Your task to perform on an android device: Go to ESPN.com Image 0: 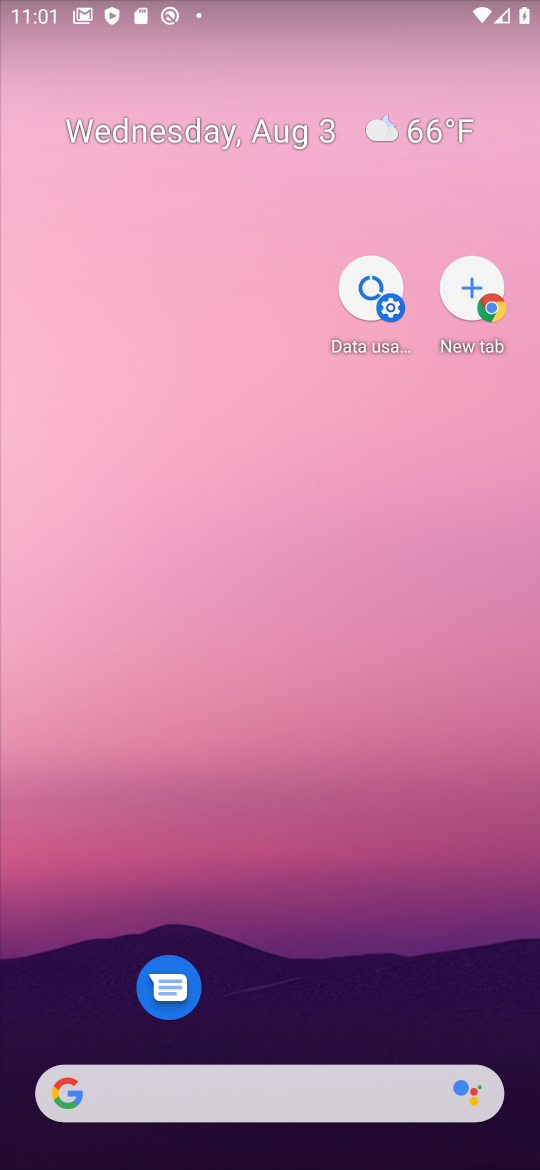
Step 0: drag from (302, 627) to (286, 433)
Your task to perform on an android device: Go to ESPN.com Image 1: 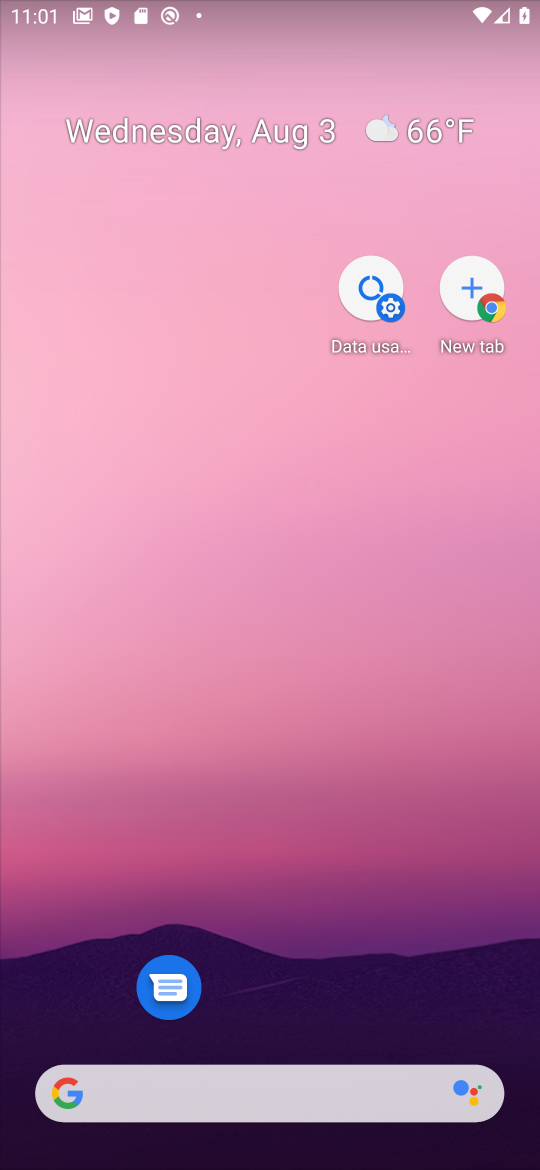
Step 1: drag from (285, 535) to (285, 469)
Your task to perform on an android device: Go to ESPN.com Image 2: 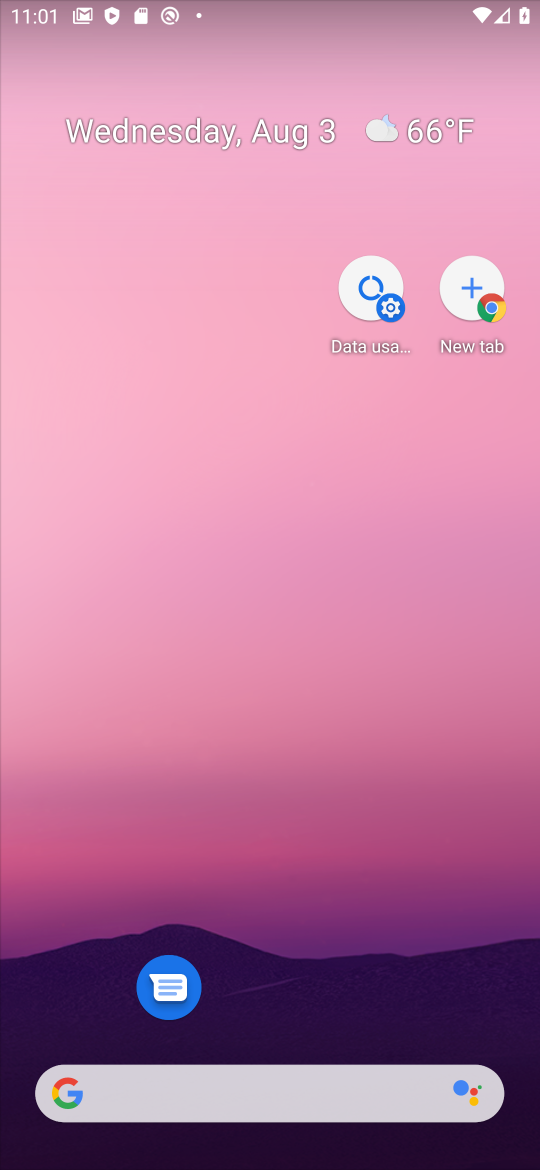
Step 2: click (399, 235)
Your task to perform on an android device: Go to ESPN.com Image 3: 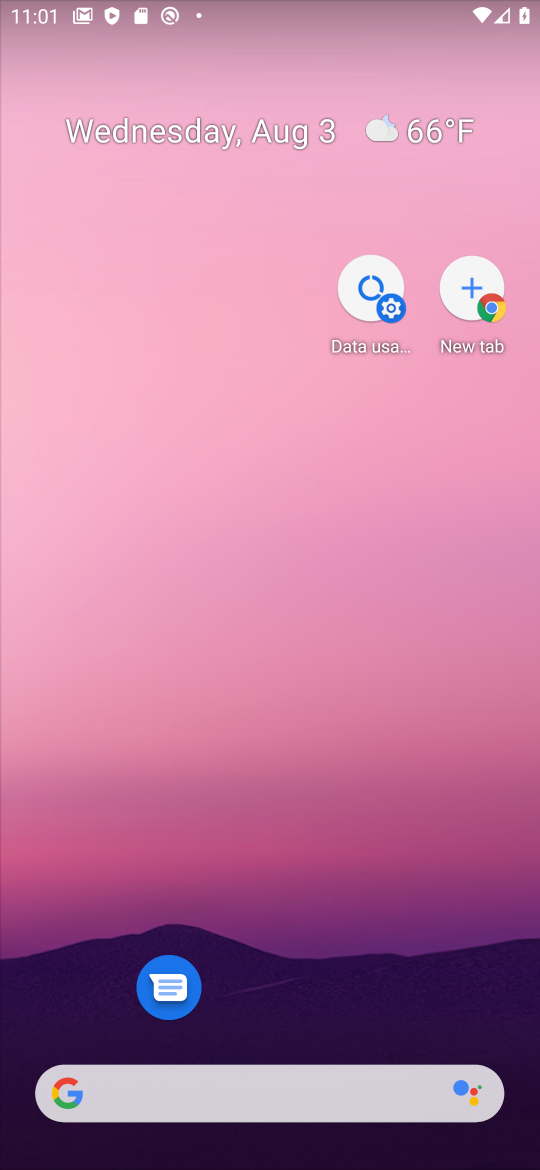
Step 3: drag from (386, 643) to (369, 233)
Your task to perform on an android device: Go to ESPN.com Image 4: 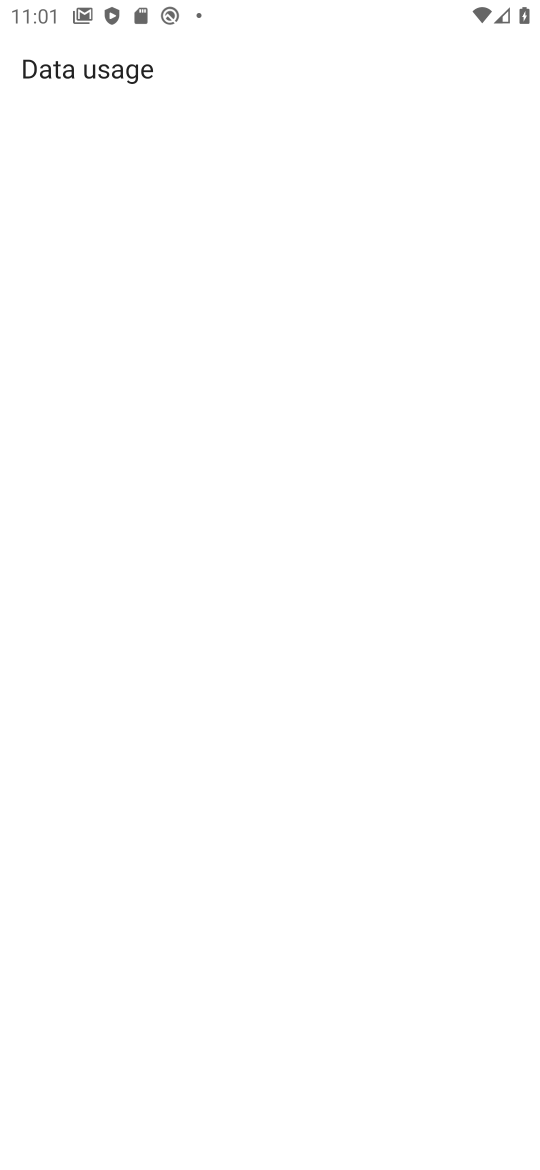
Step 4: drag from (392, 752) to (351, 297)
Your task to perform on an android device: Go to ESPN.com Image 5: 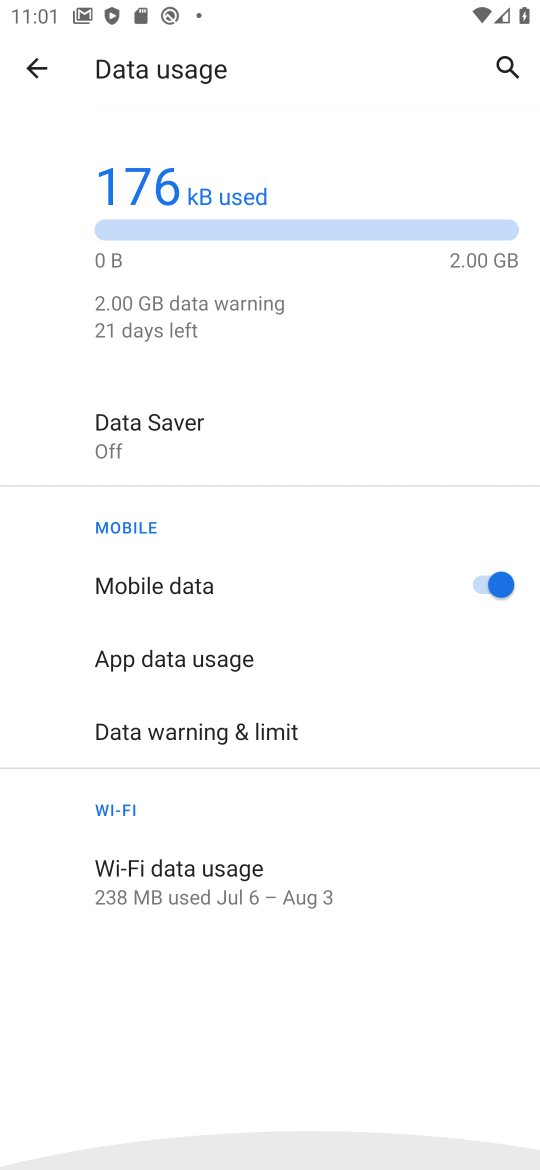
Step 5: drag from (395, 615) to (376, 245)
Your task to perform on an android device: Go to ESPN.com Image 6: 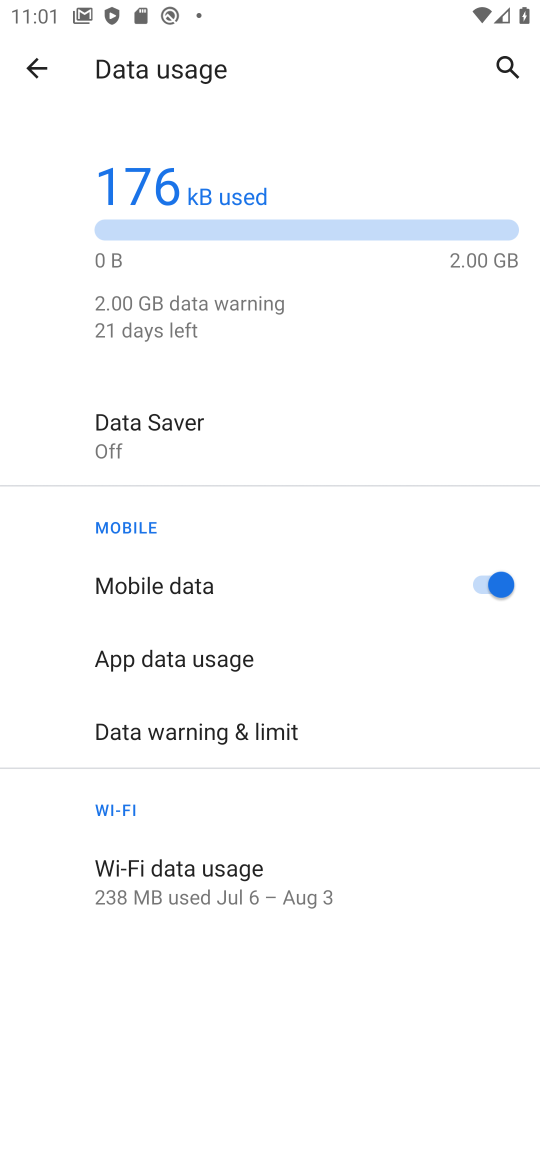
Step 6: click (41, 69)
Your task to perform on an android device: Go to ESPN.com Image 7: 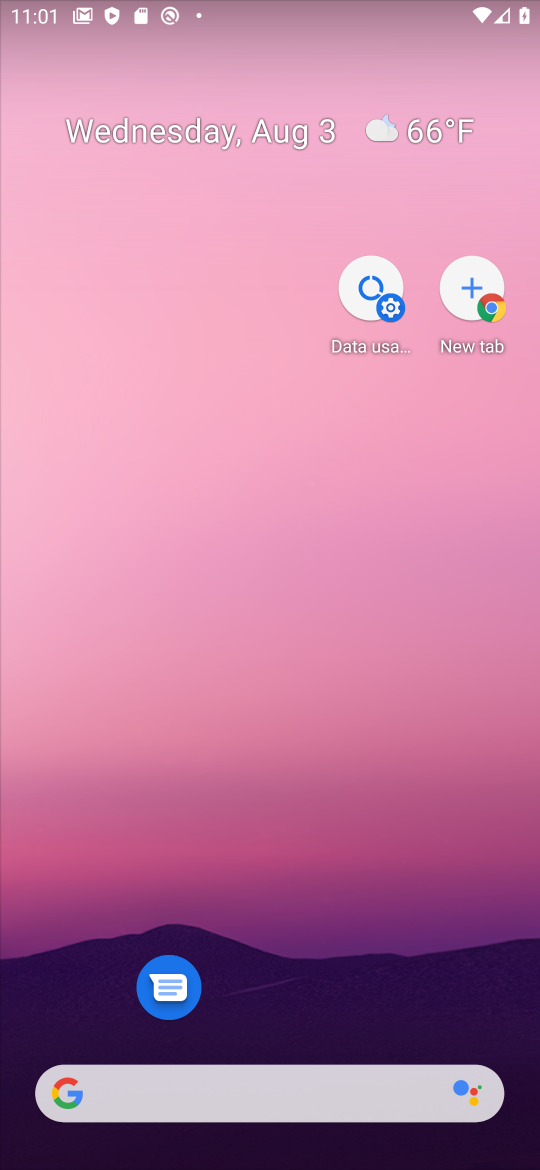
Step 7: drag from (302, 953) to (257, 201)
Your task to perform on an android device: Go to ESPN.com Image 8: 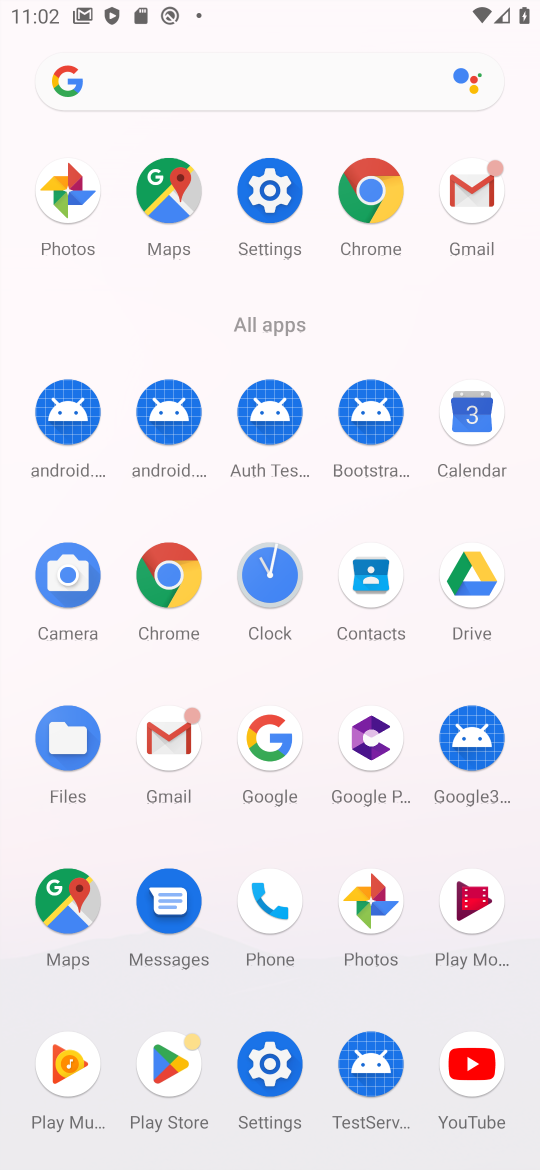
Step 8: click (351, 189)
Your task to perform on an android device: Go to ESPN.com Image 9: 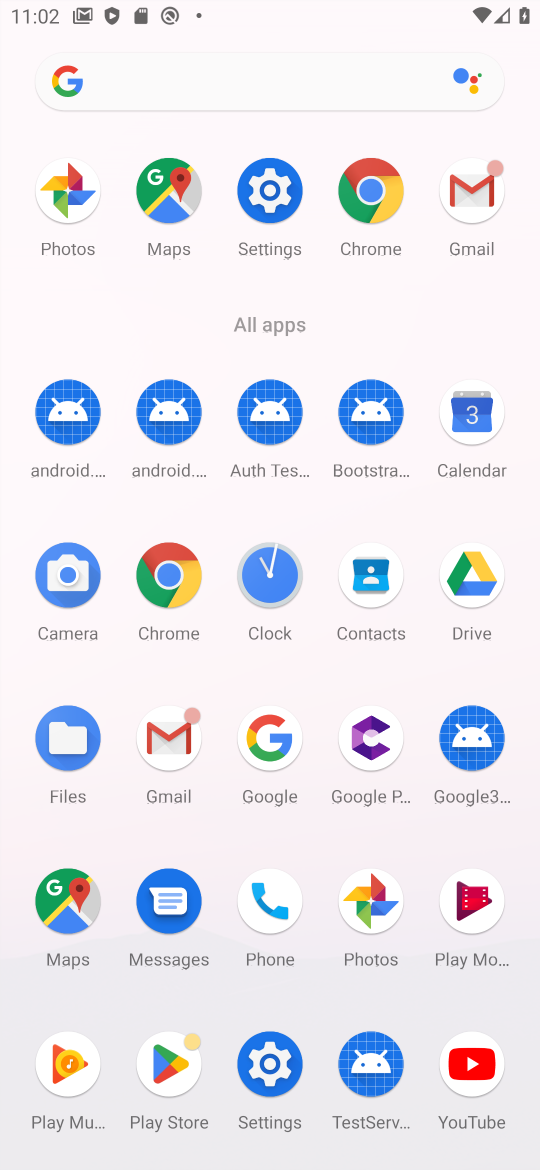
Step 9: click (372, 186)
Your task to perform on an android device: Go to ESPN.com Image 10: 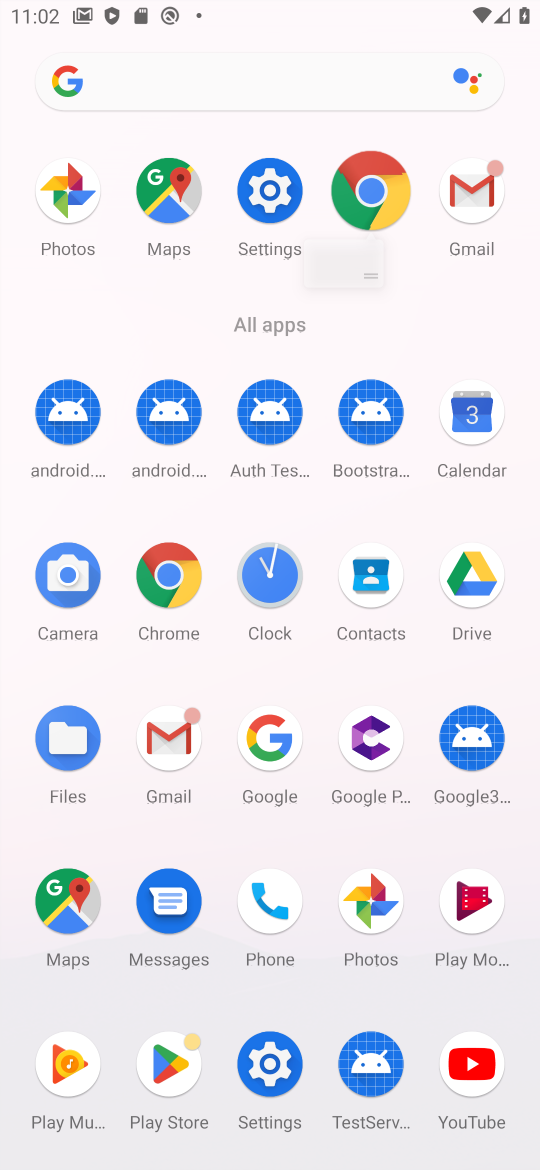
Step 10: click (372, 187)
Your task to perform on an android device: Go to ESPN.com Image 11: 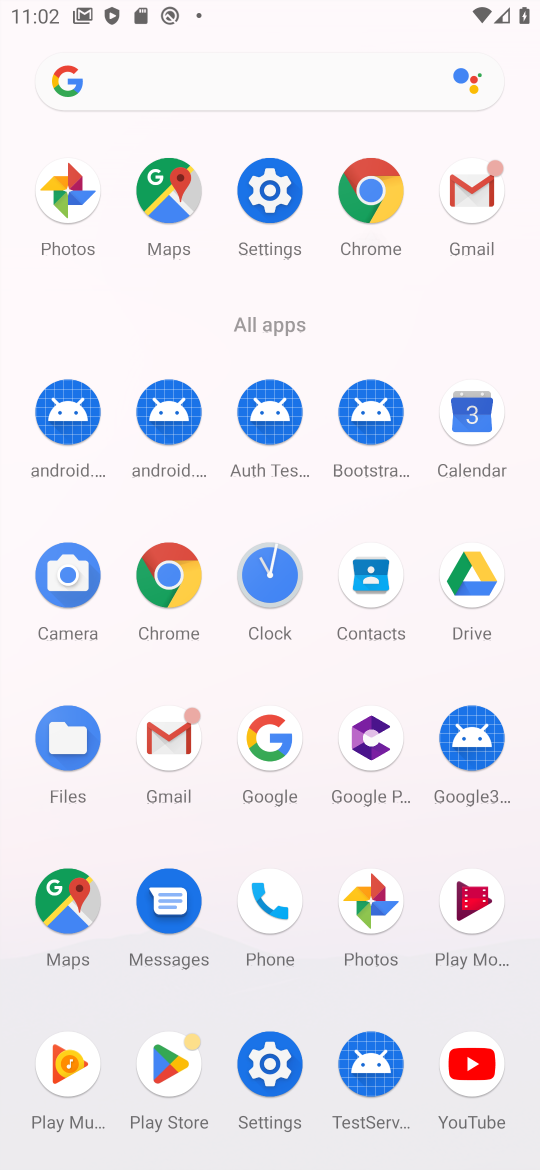
Step 11: click (371, 203)
Your task to perform on an android device: Go to ESPN.com Image 12: 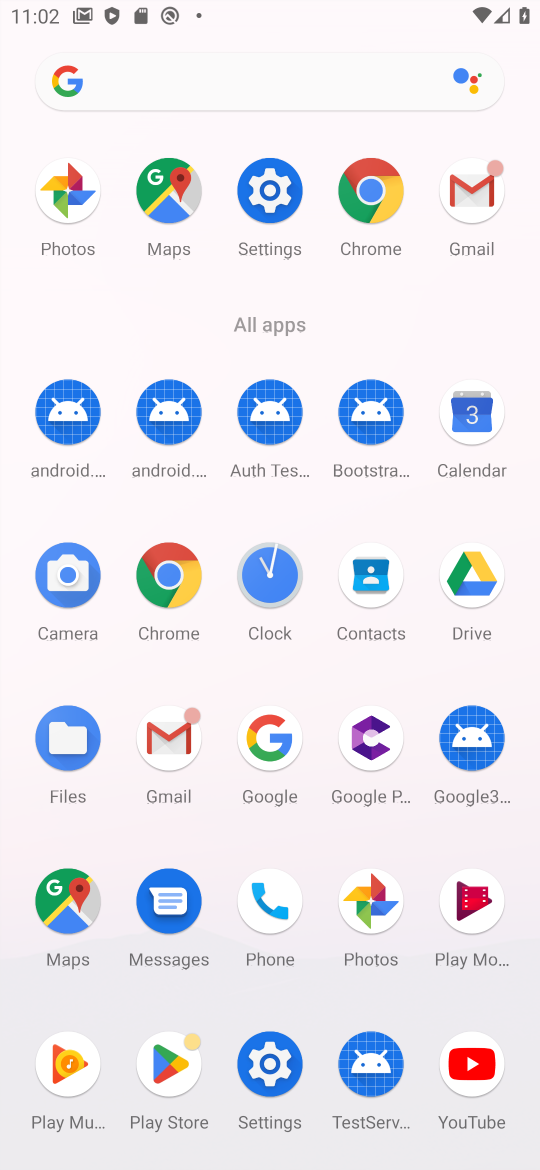
Step 12: click (364, 177)
Your task to perform on an android device: Go to ESPN.com Image 13: 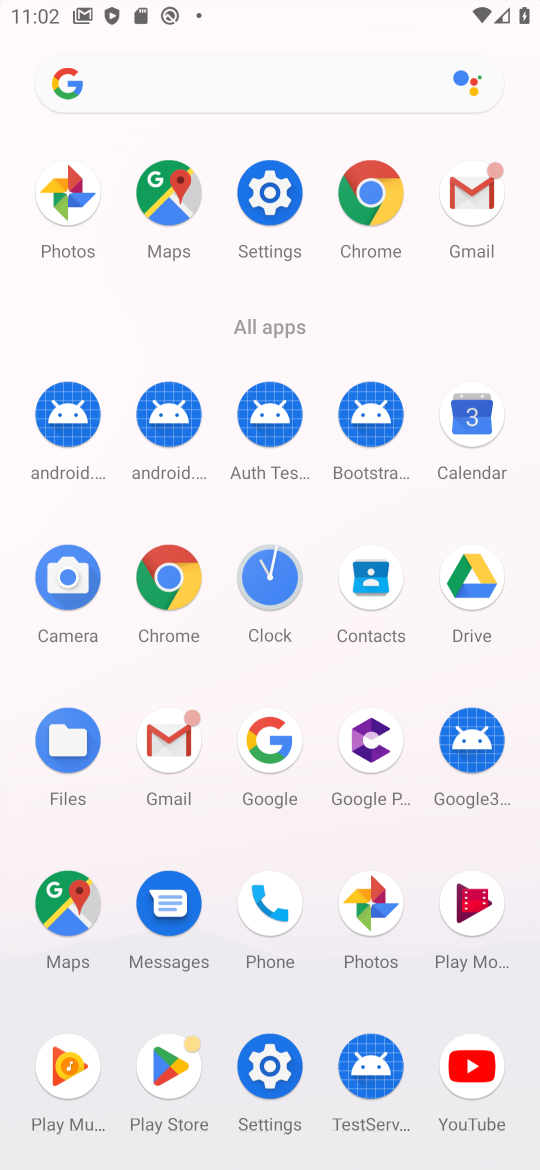
Step 13: click (371, 190)
Your task to perform on an android device: Go to ESPN.com Image 14: 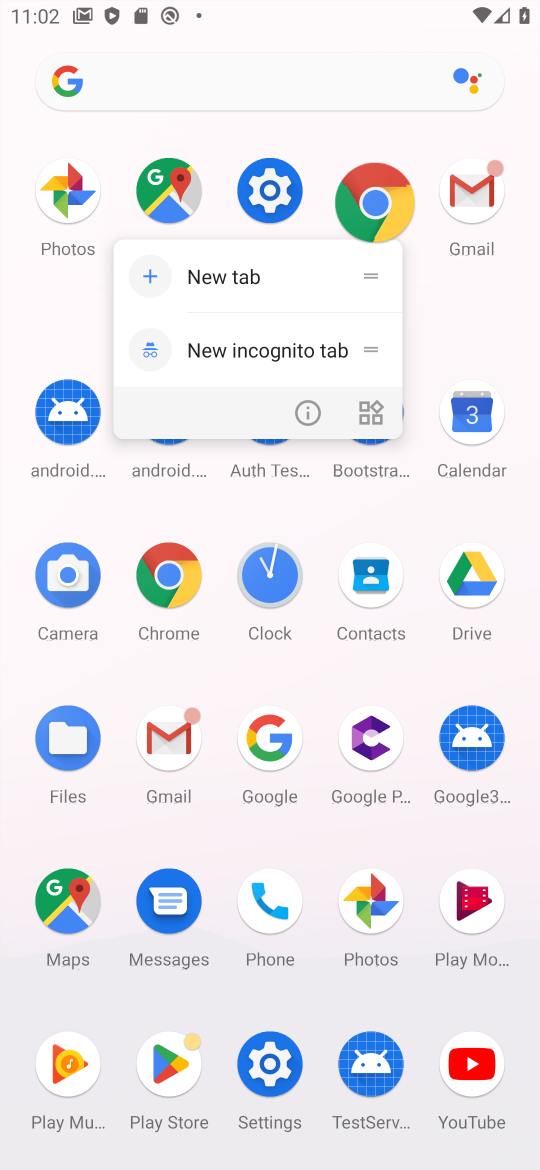
Step 14: click (375, 202)
Your task to perform on an android device: Go to ESPN.com Image 15: 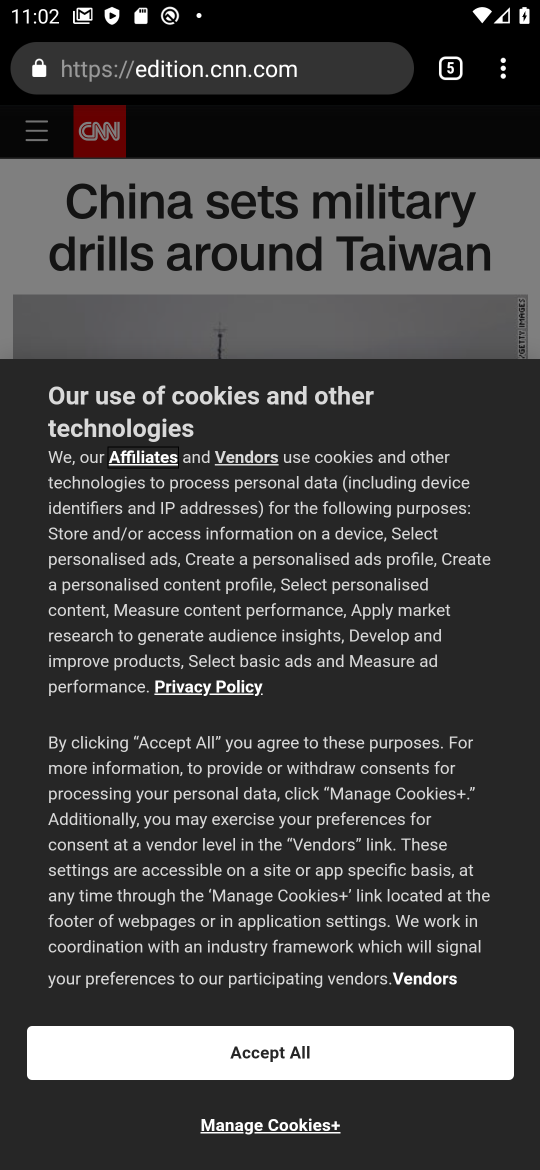
Step 15: drag from (497, 71) to (278, 141)
Your task to perform on an android device: Go to ESPN.com Image 16: 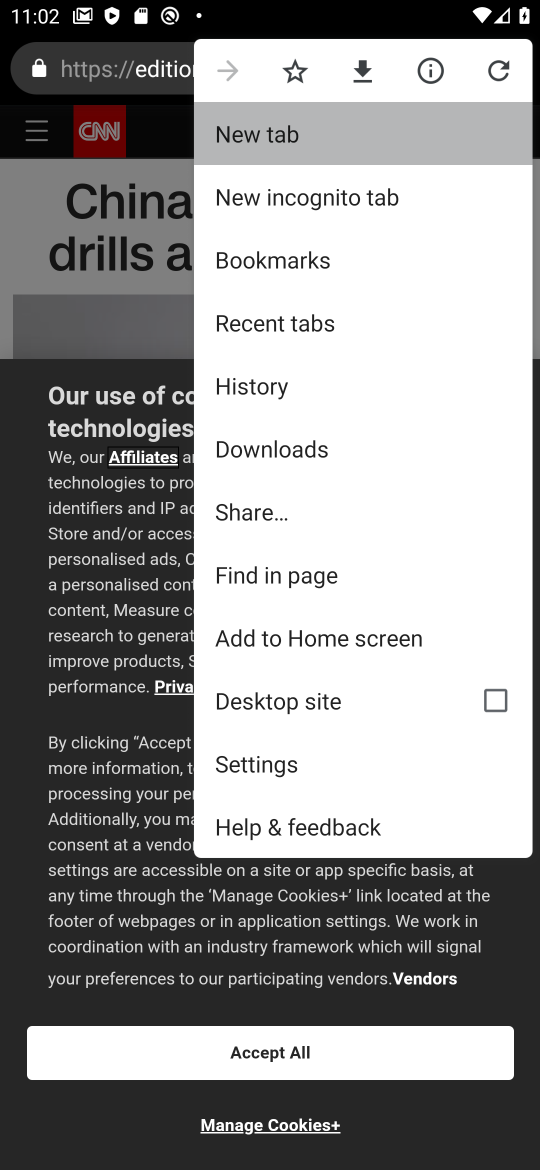
Step 16: click (281, 141)
Your task to perform on an android device: Go to ESPN.com Image 17: 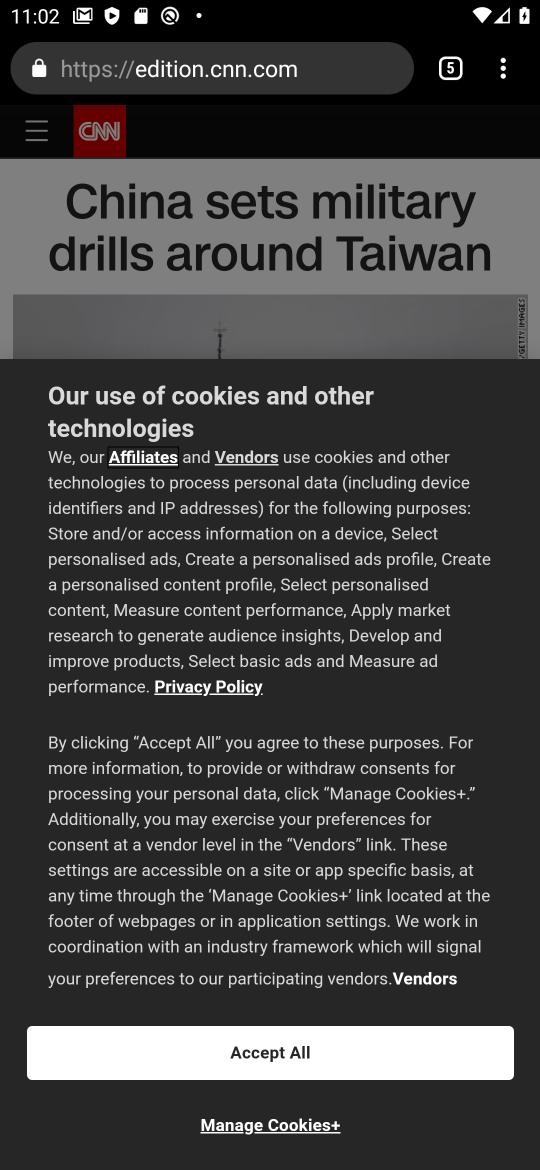
Step 17: click (288, 145)
Your task to perform on an android device: Go to ESPN.com Image 18: 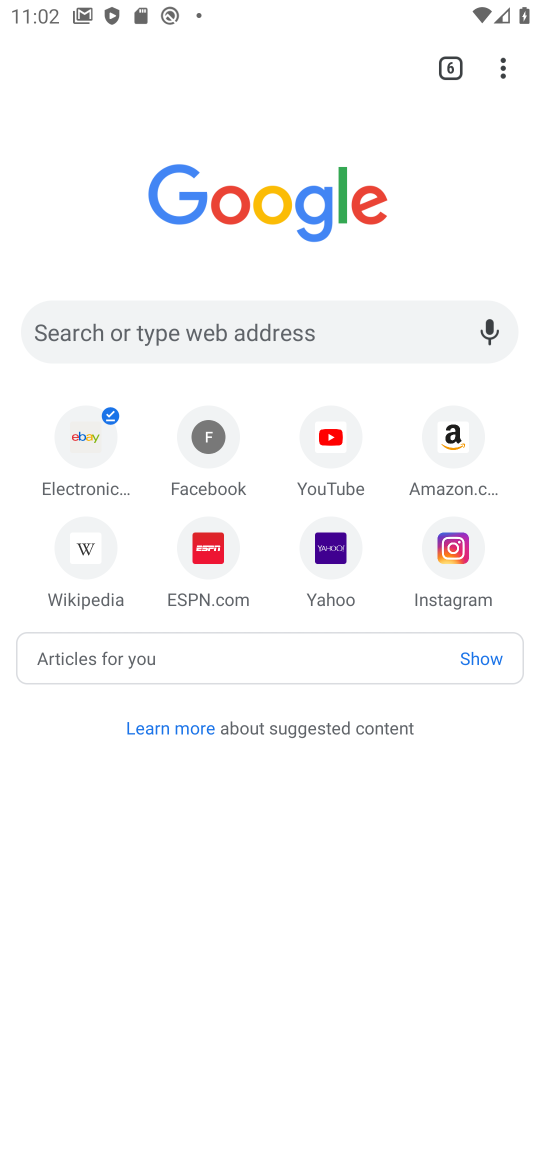
Step 18: click (209, 554)
Your task to perform on an android device: Go to ESPN.com Image 19: 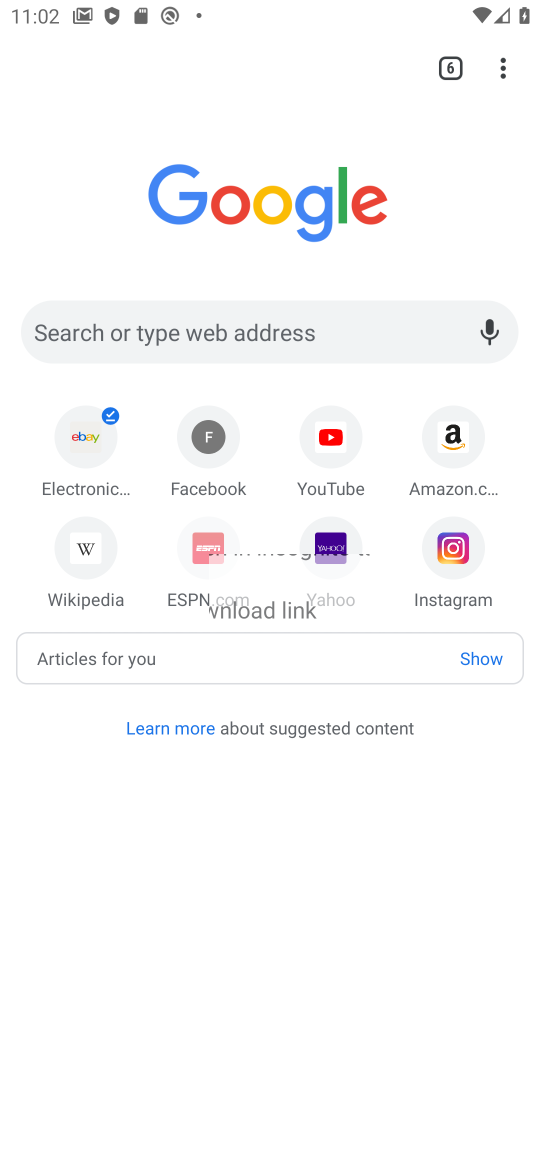
Step 19: click (211, 552)
Your task to perform on an android device: Go to ESPN.com Image 20: 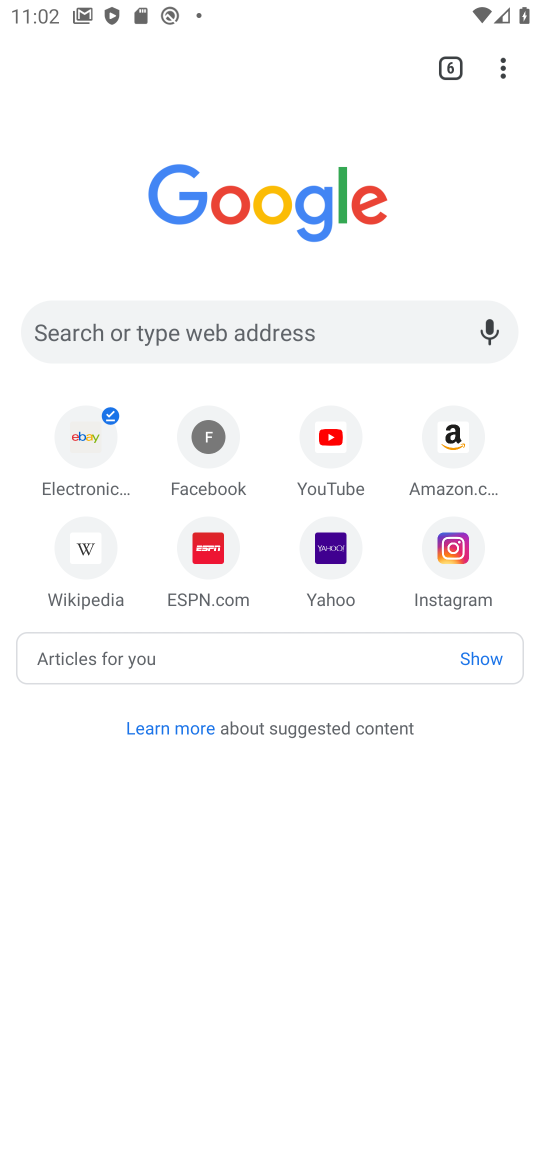
Step 20: click (197, 574)
Your task to perform on an android device: Go to ESPN.com Image 21: 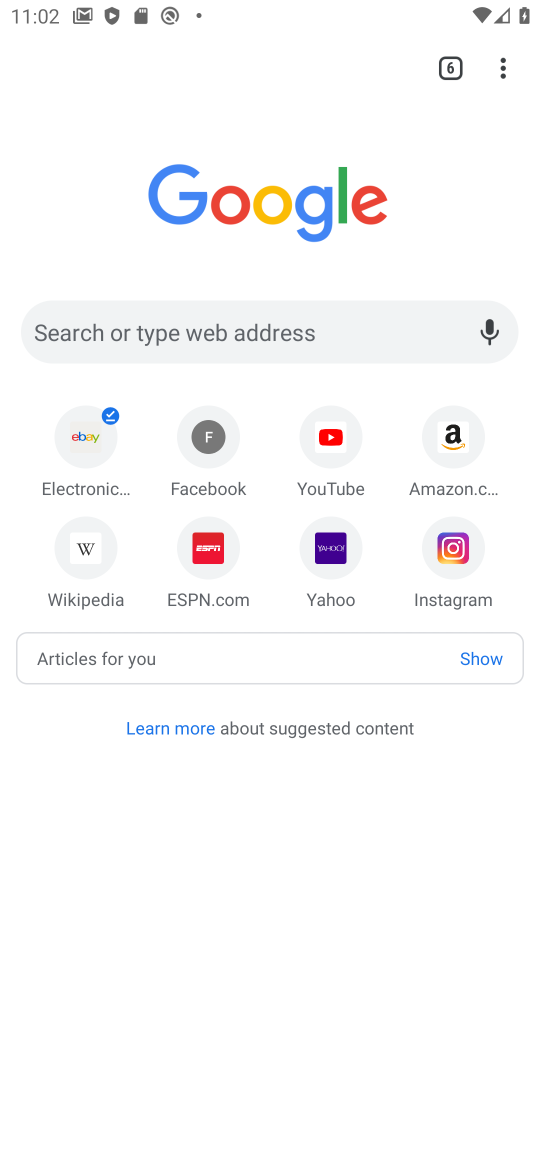
Step 21: click (197, 574)
Your task to perform on an android device: Go to ESPN.com Image 22: 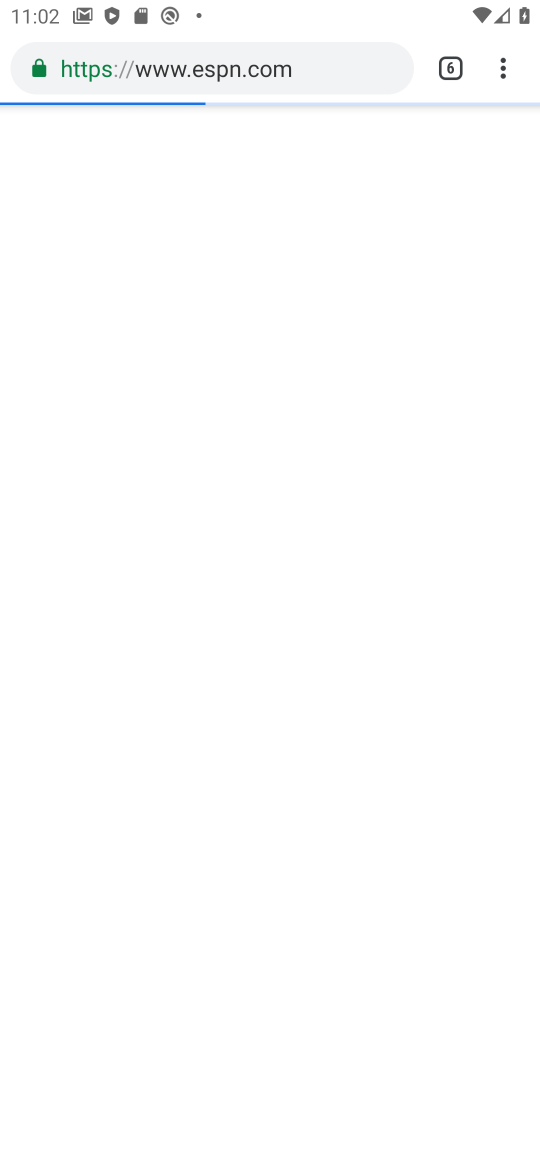
Step 22: click (197, 574)
Your task to perform on an android device: Go to ESPN.com Image 23: 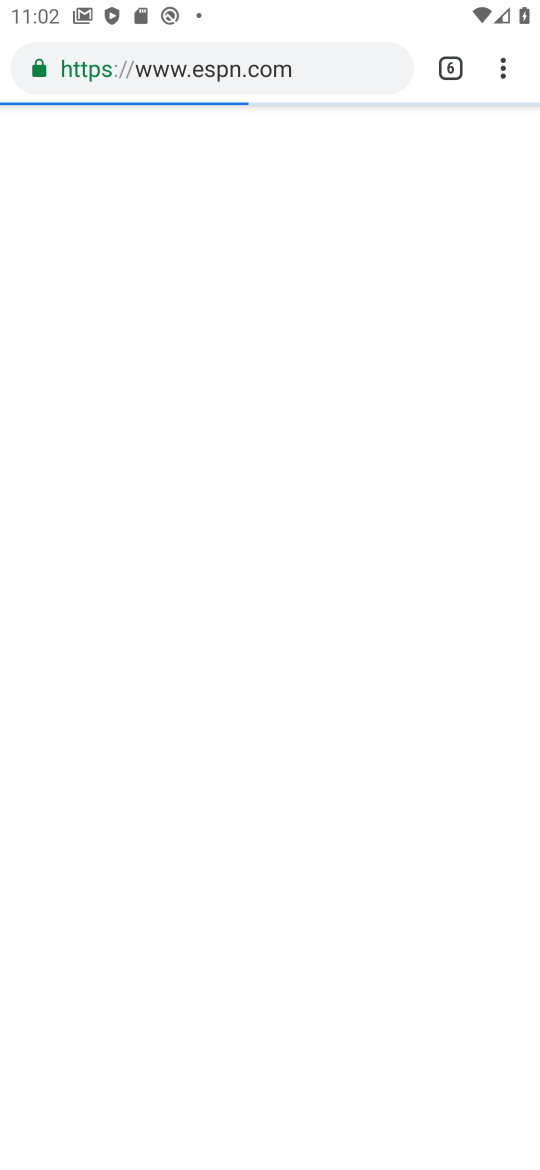
Step 23: click (197, 574)
Your task to perform on an android device: Go to ESPN.com Image 24: 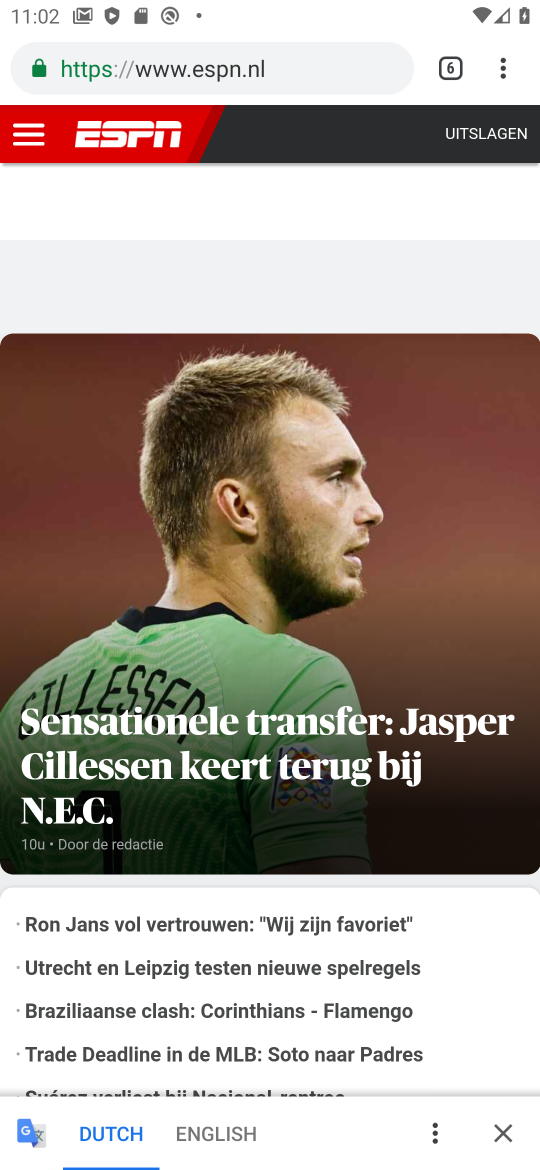
Step 24: task complete